Your task to perform on an android device: Show me productivity apps on the Play Store Image 0: 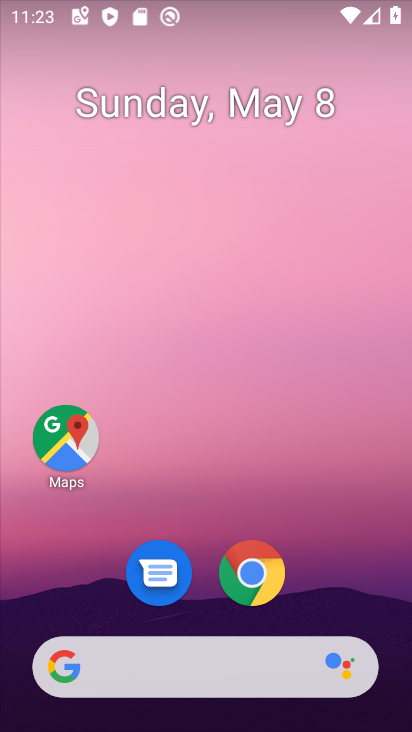
Step 0: drag from (340, 574) to (282, 14)
Your task to perform on an android device: Show me productivity apps on the Play Store Image 1: 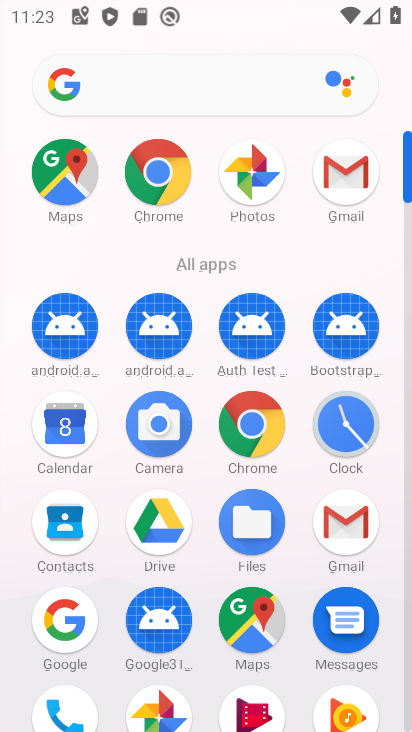
Step 1: drag from (18, 609) to (25, 256)
Your task to perform on an android device: Show me productivity apps on the Play Store Image 2: 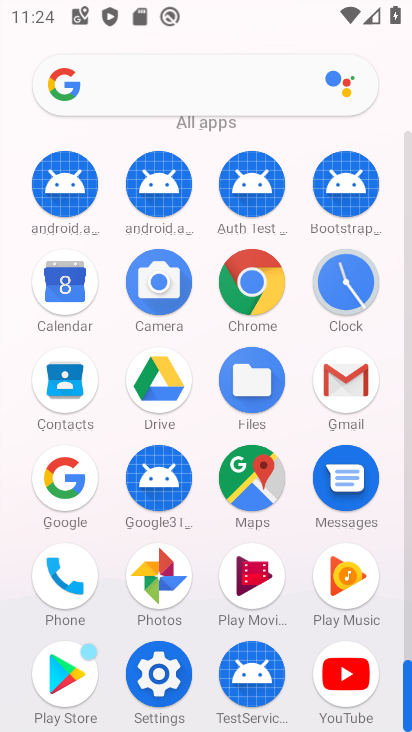
Step 2: click (61, 671)
Your task to perform on an android device: Show me productivity apps on the Play Store Image 3: 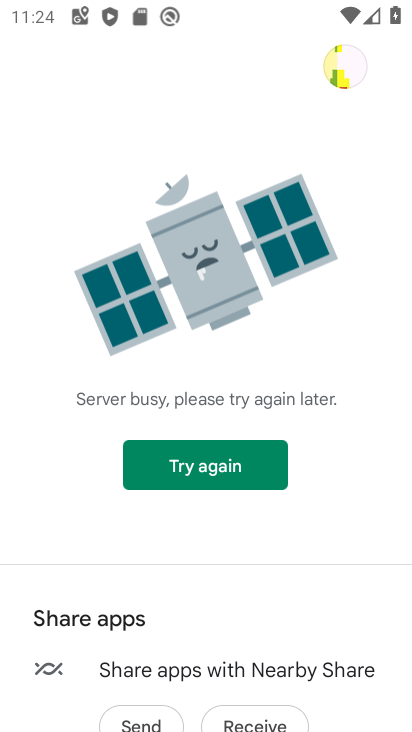
Step 3: click (198, 478)
Your task to perform on an android device: Show me productivity apps on the Play Store Image 4: 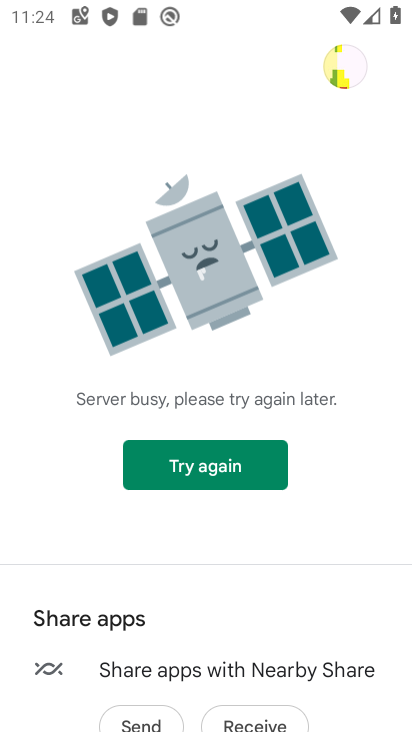
Step 4: task complete